Your task to perform on an android device: Go to Google Image 0: 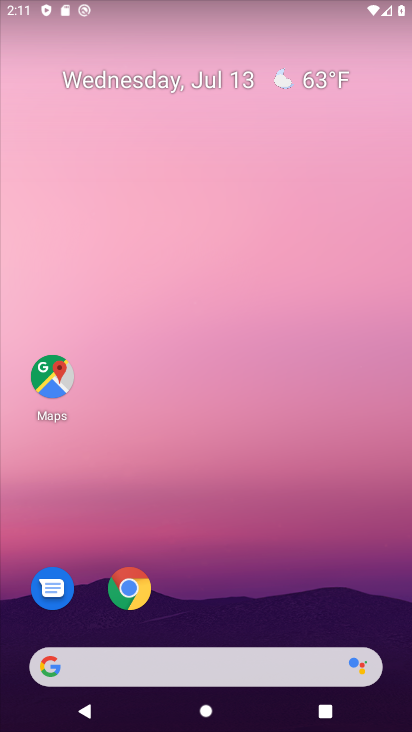
Step 0: drag from (204, 667) to (243, 209)
Your task to perform on an android device: Go to Google Image 1: 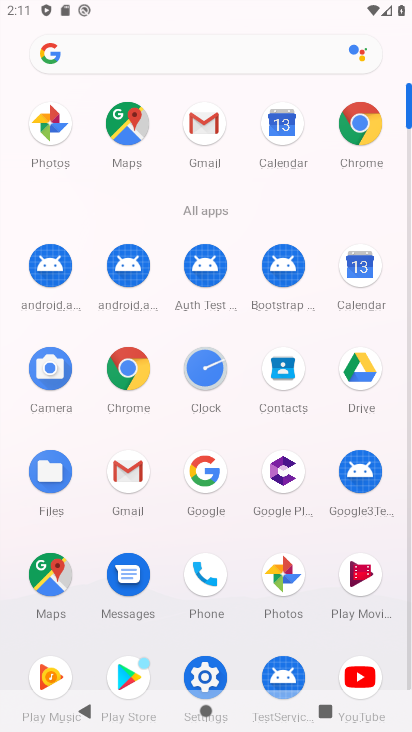
Step 1: click (206, 469)
Your task to perform on an android device: Go to Google Image 2: 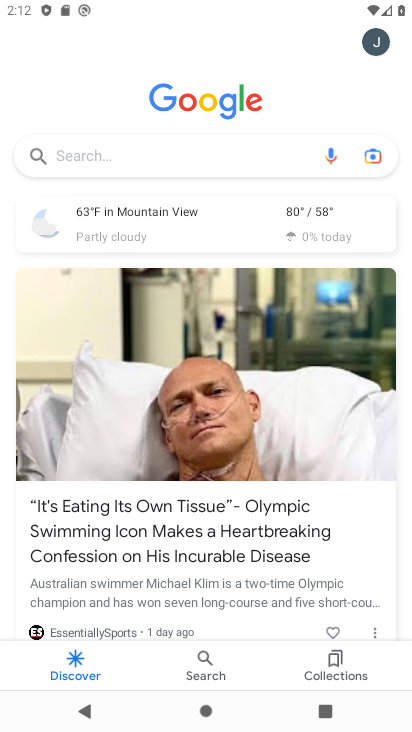
Step 2: task complete